Your task to perform on an android device: Add lg ultragear to the cart on newegg, then select checkout. Image 0: 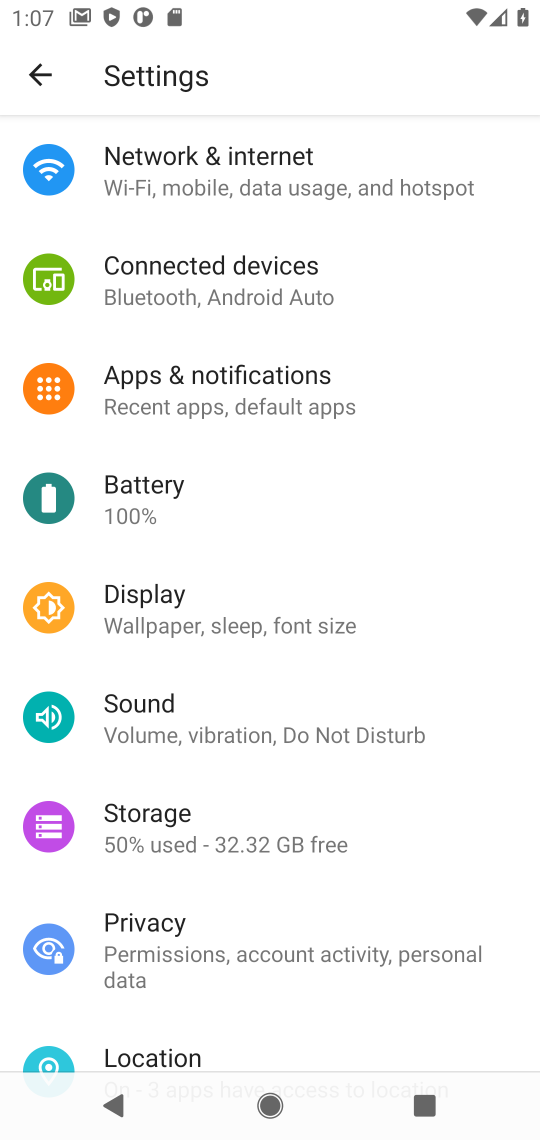
Step 0: press home button
Your task to perform on an android device: Add lg ultragear to the cart on newegg, then select checkout. Image 1: 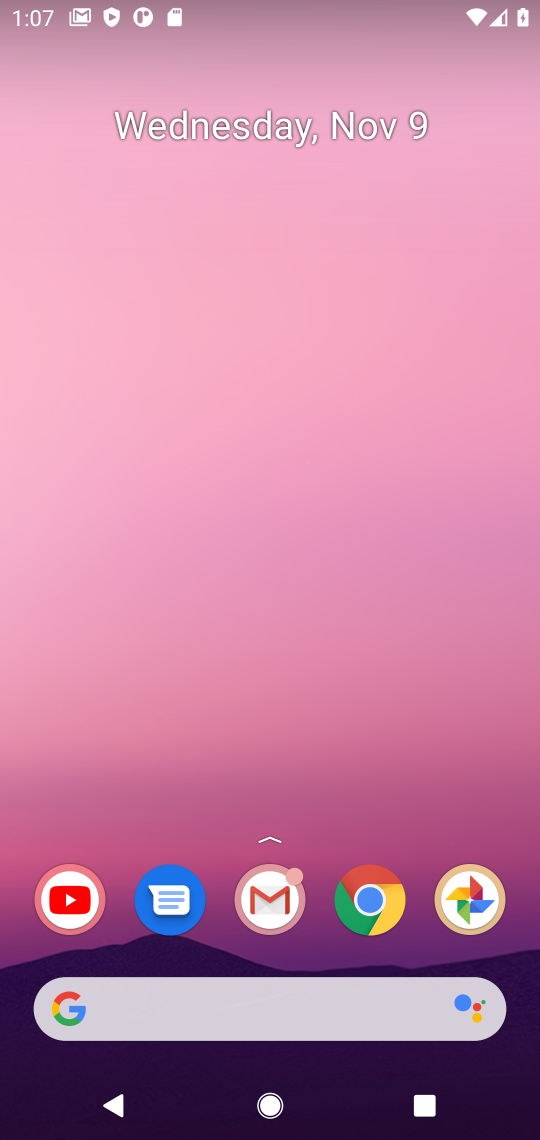
Step 1: click (366, 883)
Your task to perform on an android device: Add lg ultragear to the cart on newegg, then select checkout. Image 2: 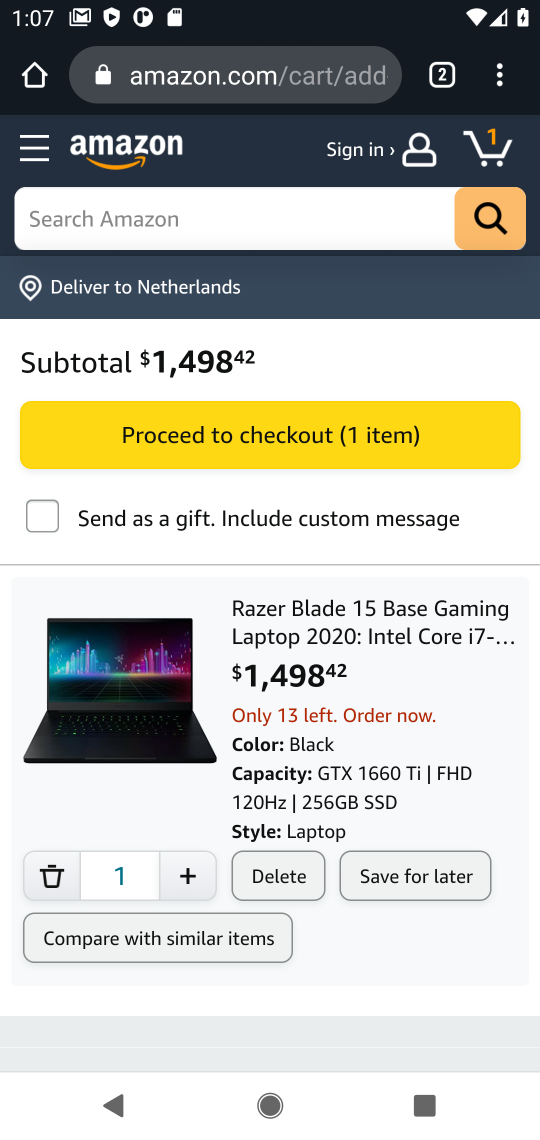
Step 2: click (449, 77)
Your task to perform on an android device: Add lg ultragear to the cart on newegg, then select checkout. Image 3: 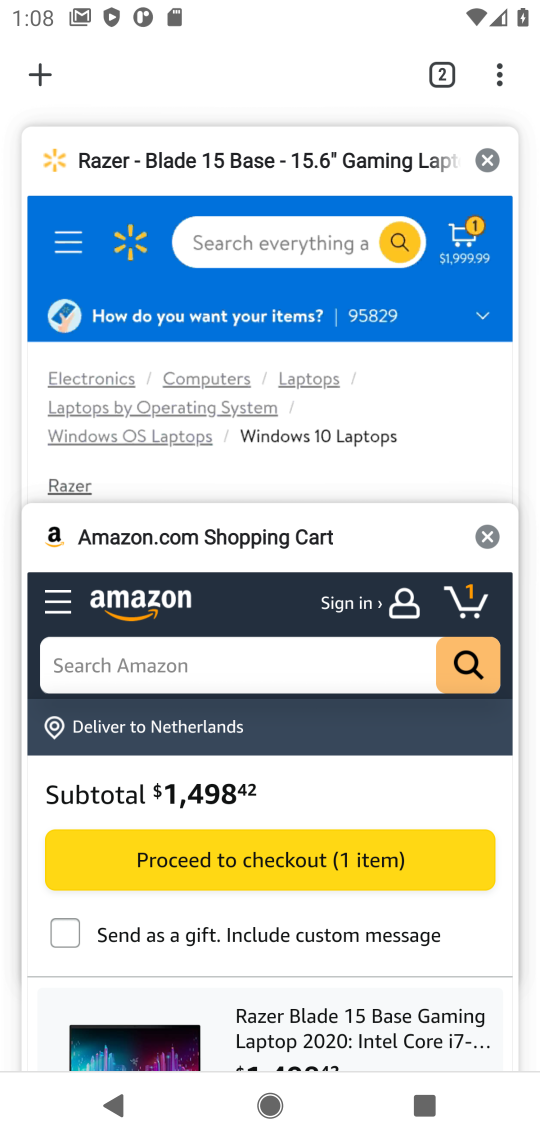
Step 3: click (40, 76)
Your task to perform on an android device: Add lg ultragear to the cart on newegg, then select checkout. Image 4: 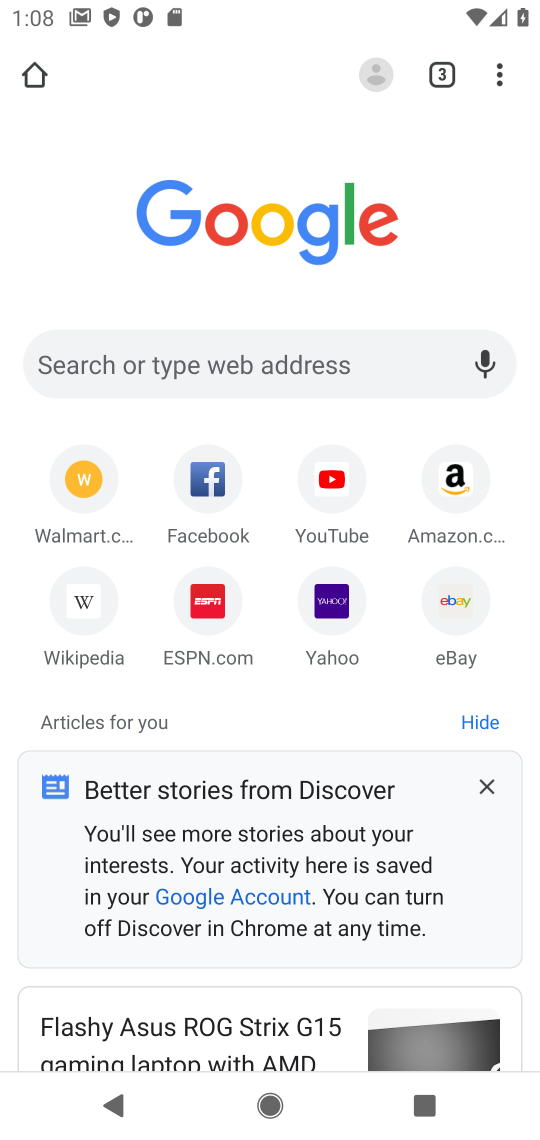
Step 4: click (196, 362)
Your task to perform on an android device: Add lg ultragear to the cart on newegg, then select checkout. Image 5: 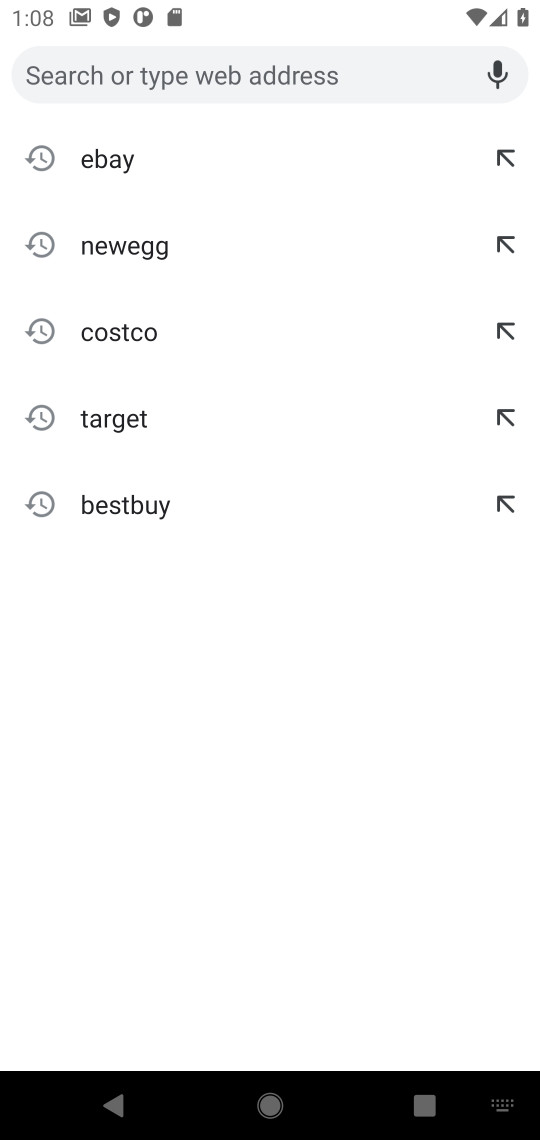
Step 5: click (142, 251)
Your task to perform on an android device: Add lg ultragear to the cart on newegg, then select checkout. Image 6: 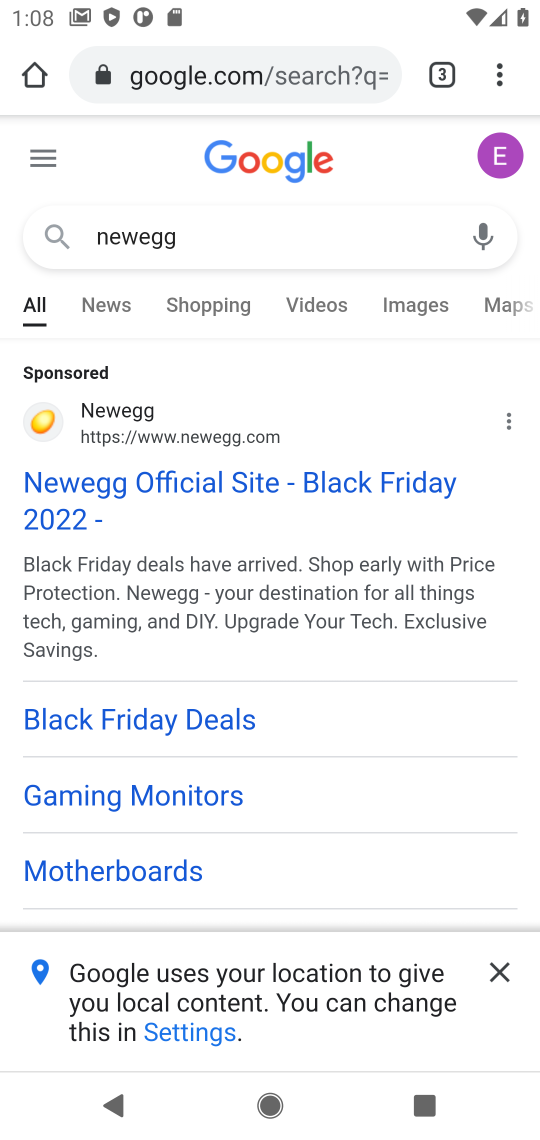
Step 6: click (281, 487)
Your task to perform on an android device: Add lg ultragear to the cart on newegg, then select checkout. Image 7: 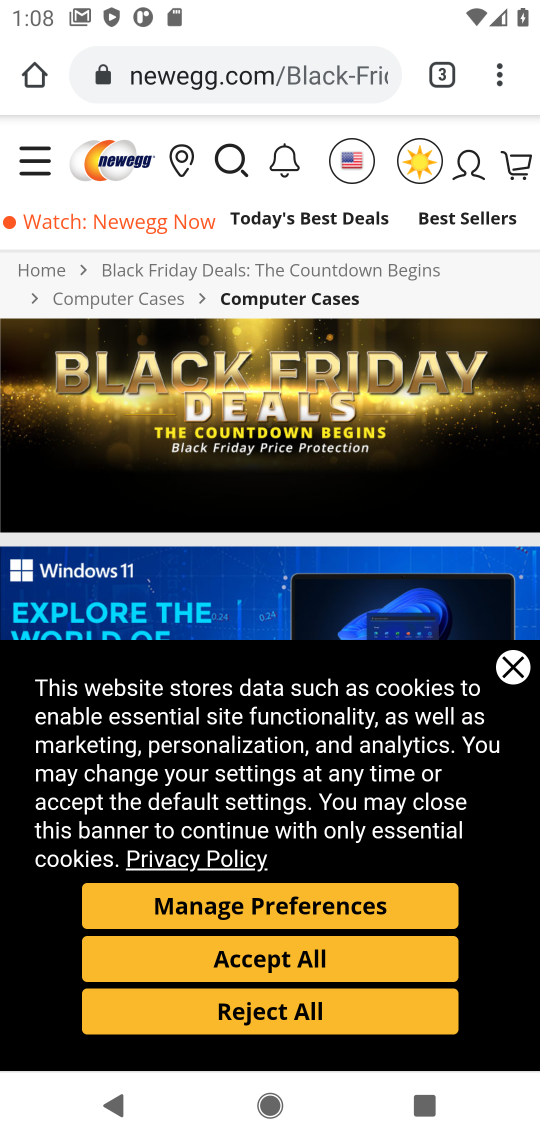
Step 7: click (338, 1013)
Your task to perform on an android device: Add lg ultragear to the cart on newegg, then select checkout. Image 8: 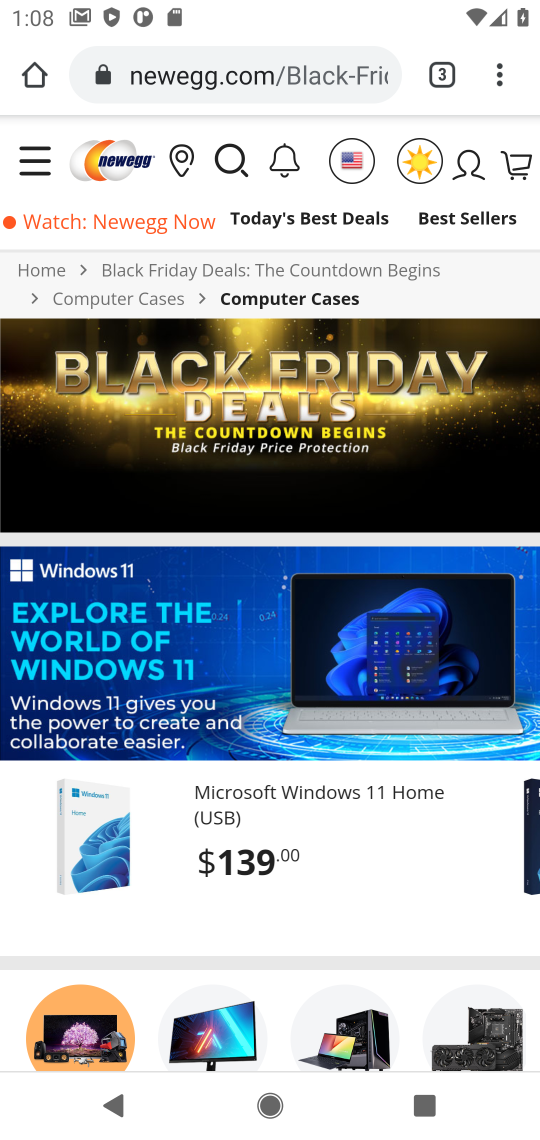
Step 8: click (227, 161)
Your task to perform on an android device: Add lg ultragear to the cart on newegg, then select checkout. Image 9: 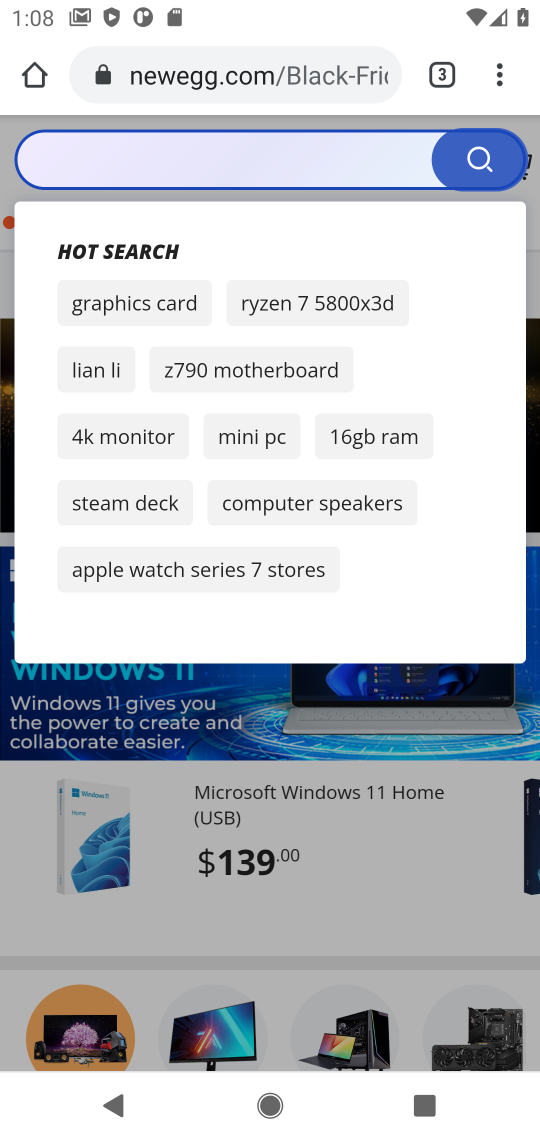
Step 9: type "lg ultragear"
Your task to perform on an android device: Add lg ultragear to the cart on newegg, then select checkout. Image 10: 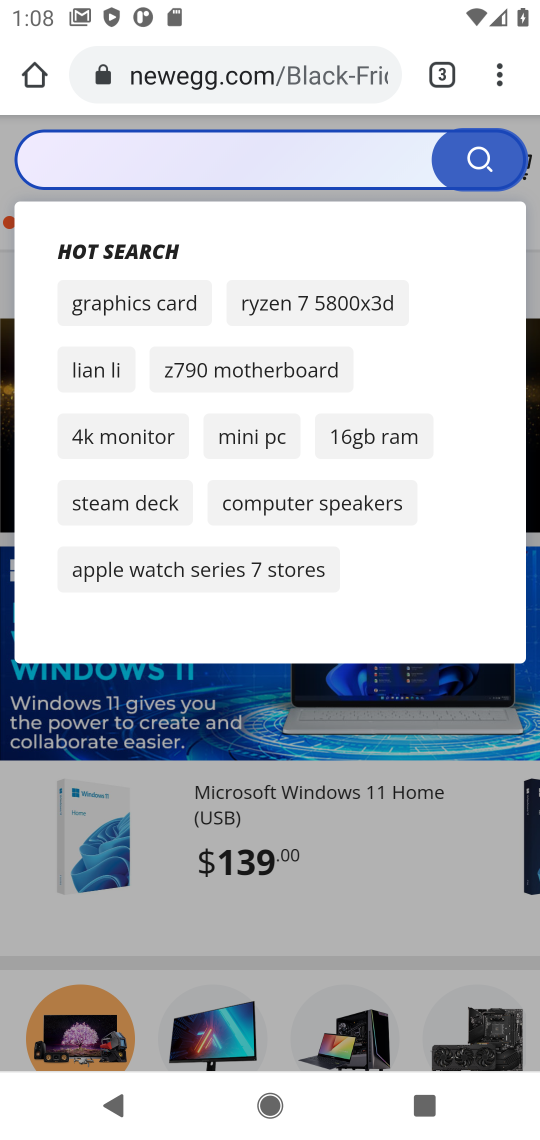
Step 10: click (309, 177)
Your task to perform on an android device: Add lg ultragear to the cart on newegg, then select checkout. Image 11: 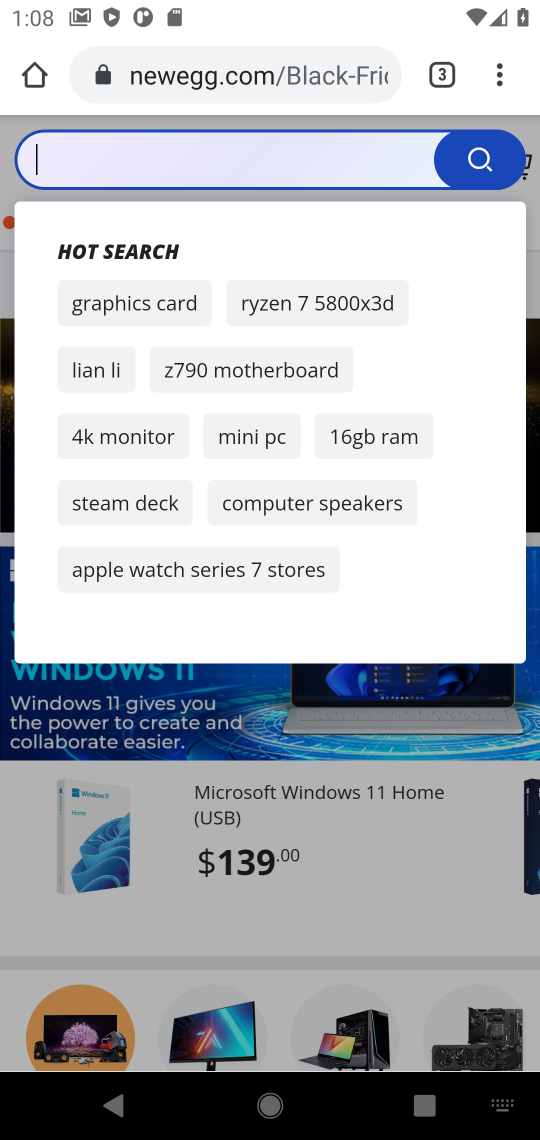
Step 11: click (309, 177)
Your task to perform on an android device: Add lg ultragear to the cart on newegg, then select checkout. Image 12: 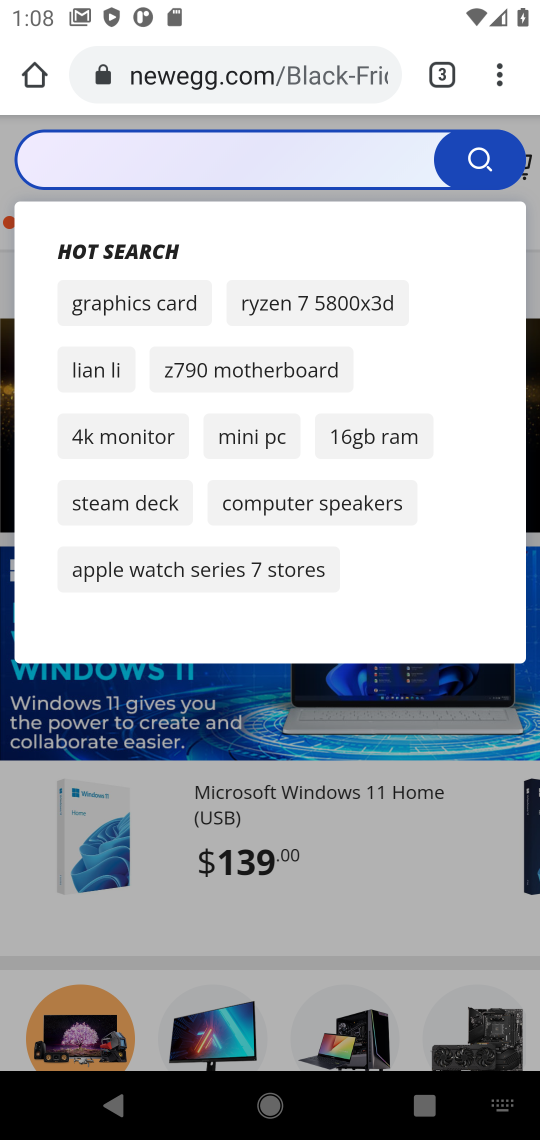
Step 12: type "lg ultragear"
Your task to perform on an android device: Add lg ultragear to the cart on newegg, then select checkout. Image 13: 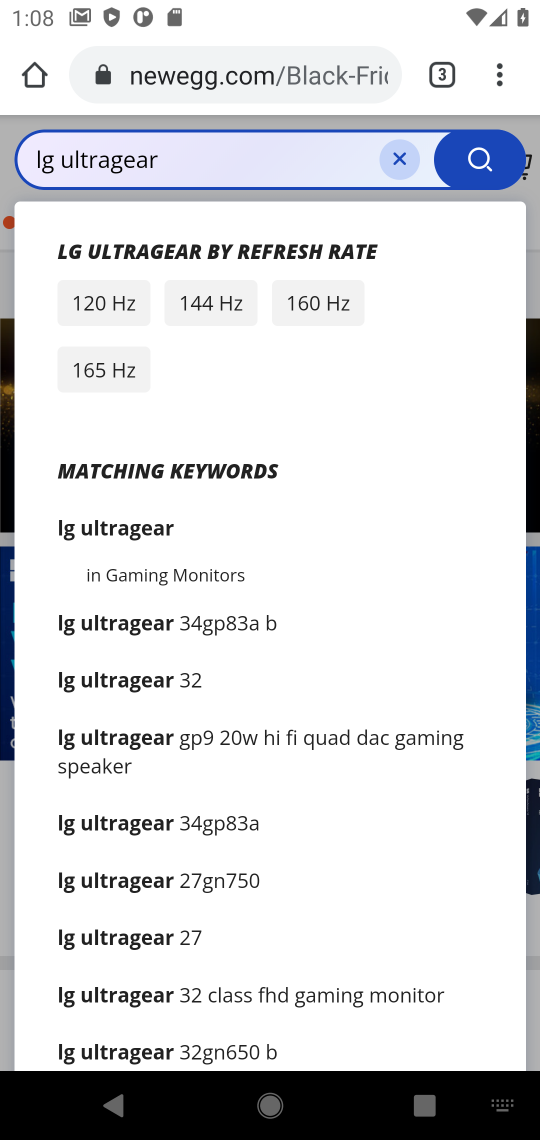
Step 13: click (132, 528)
Your task to perform on an android device: Add lg ultragear to the cart on newegg, then select checkout. Image 14: 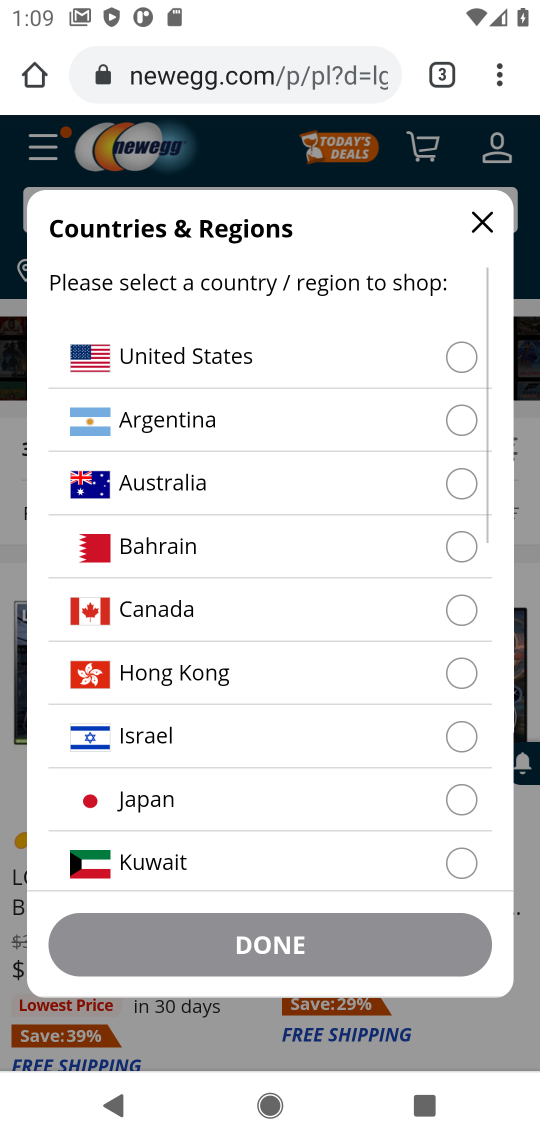
Step 14: click (458, 366)
Your task to perform on an android device: Add lg ultragear to the cart on newegg, then select checkout. Image 15: 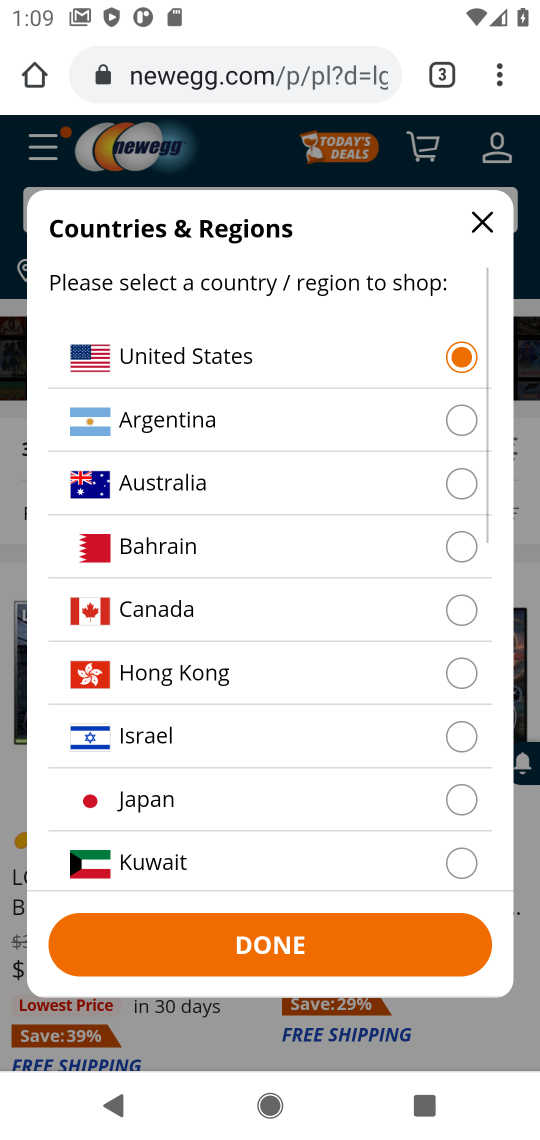
Step 15: click (265, 947)
Your task to perform on an android device: Add lg ultragear to the cart on newegg, then select checkout. Image 16: 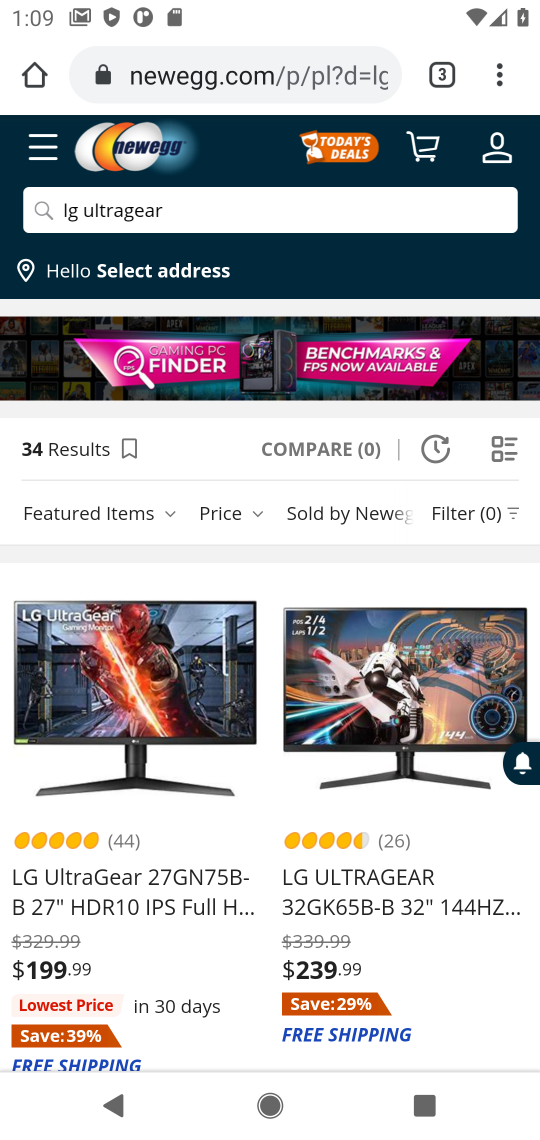
Step 16: click (172, 915)
Your task to perform on an android device: Add lg ultragear to the cart on newegg, then select checkout. Image 17: 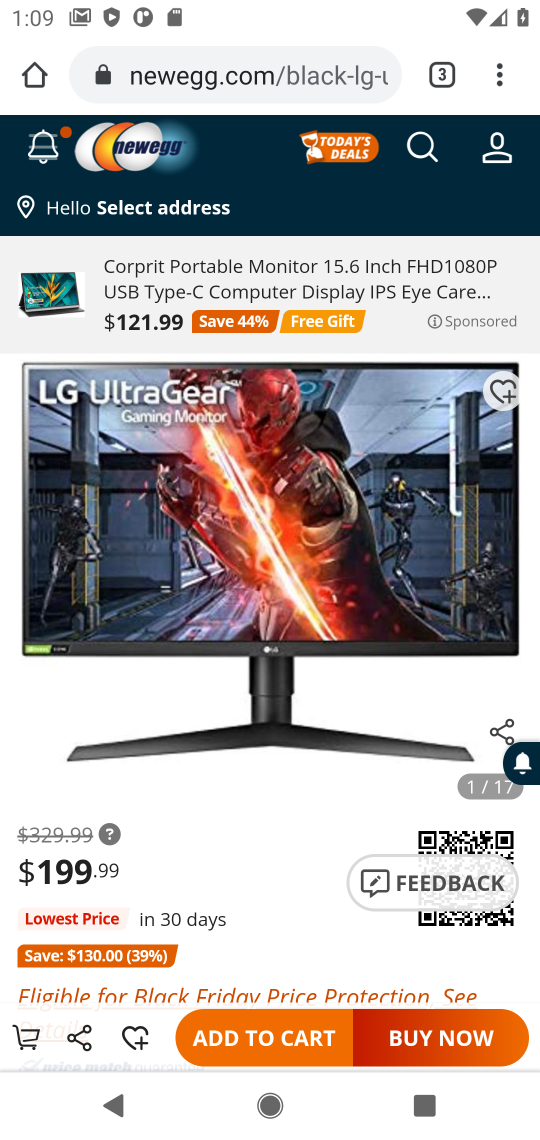
Step 17: click (236, 1045)
Your task to perform on an android device: Add lg ultragear to the cart on newegg, then select checkout. Image 18: 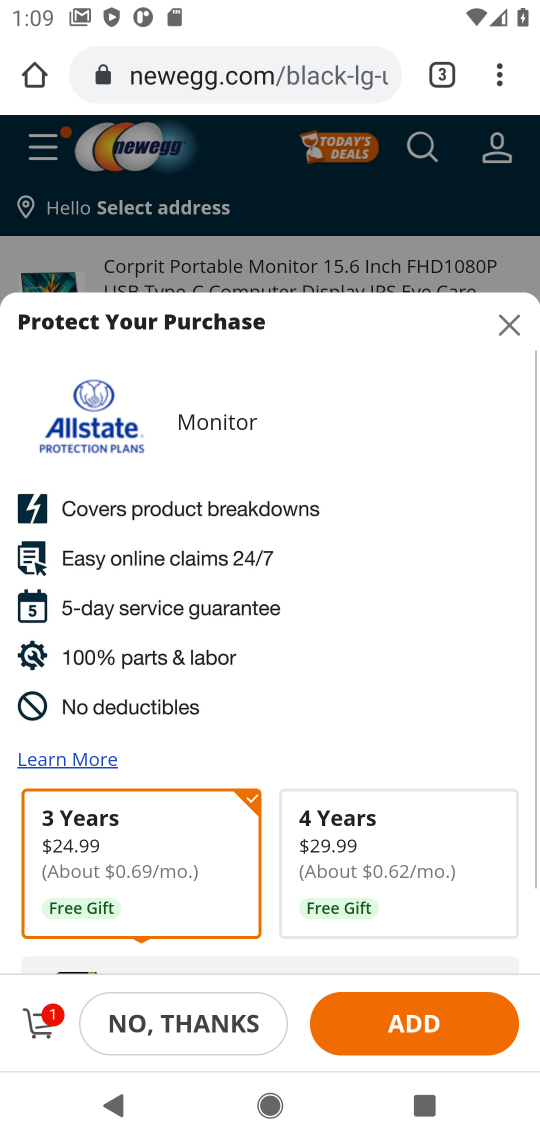
Step 18: click (49, 1005)
Your task to perform on an android device: Add lg ultragear to the cart on newegg, then select checkout. Image 19: 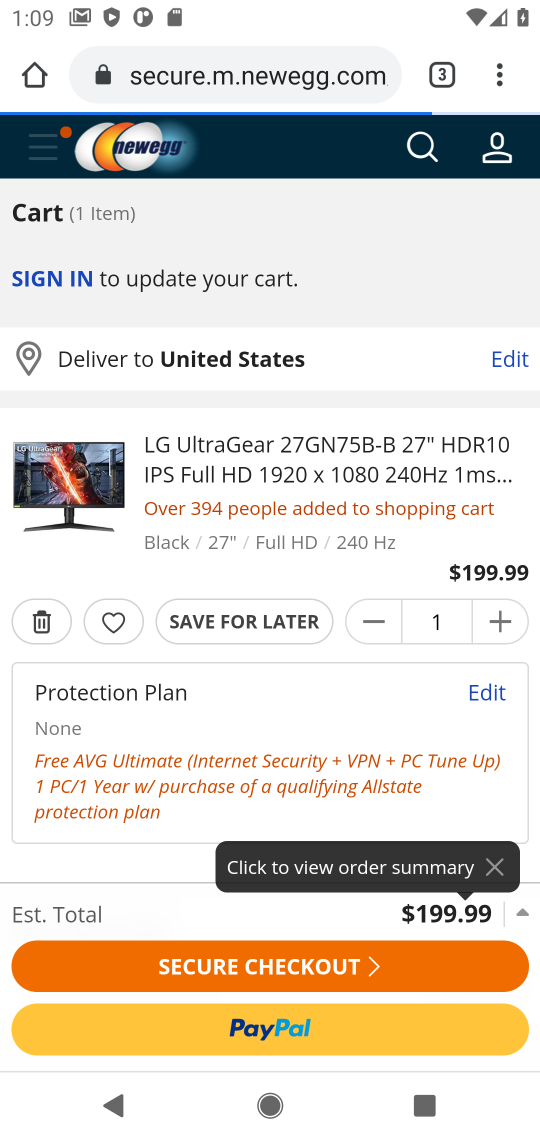
Step 19: click (159, 1018)
Your task to perform on an android device: Add lg ultragear to the cart on newegg, then select checkout. Image 20: 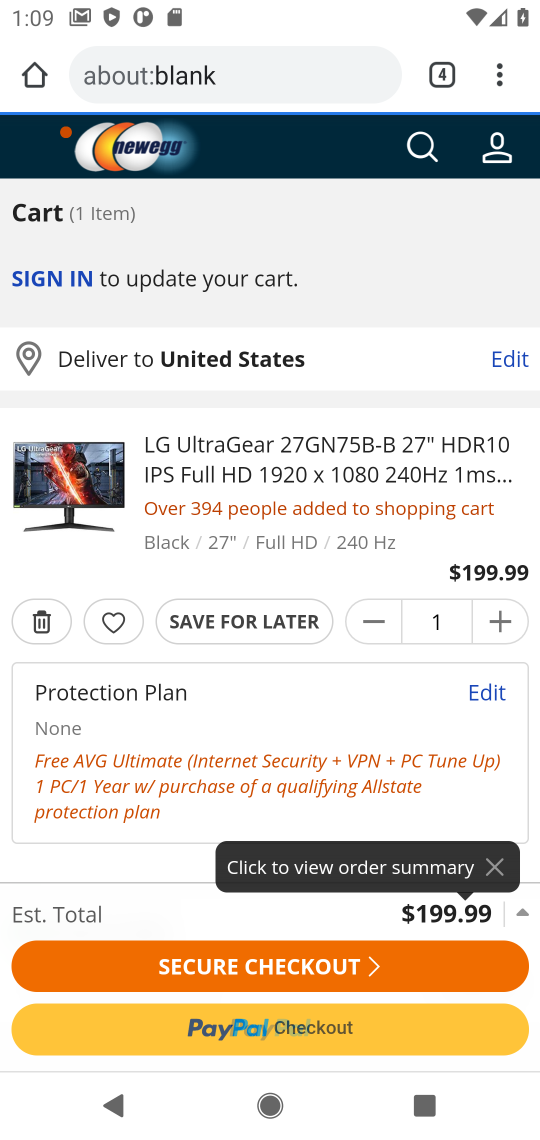
Step 20: click (193, 960)
Your task to perform on an android device: Add lg ultragear to the cart on newegg, then select checkout. Image 21: 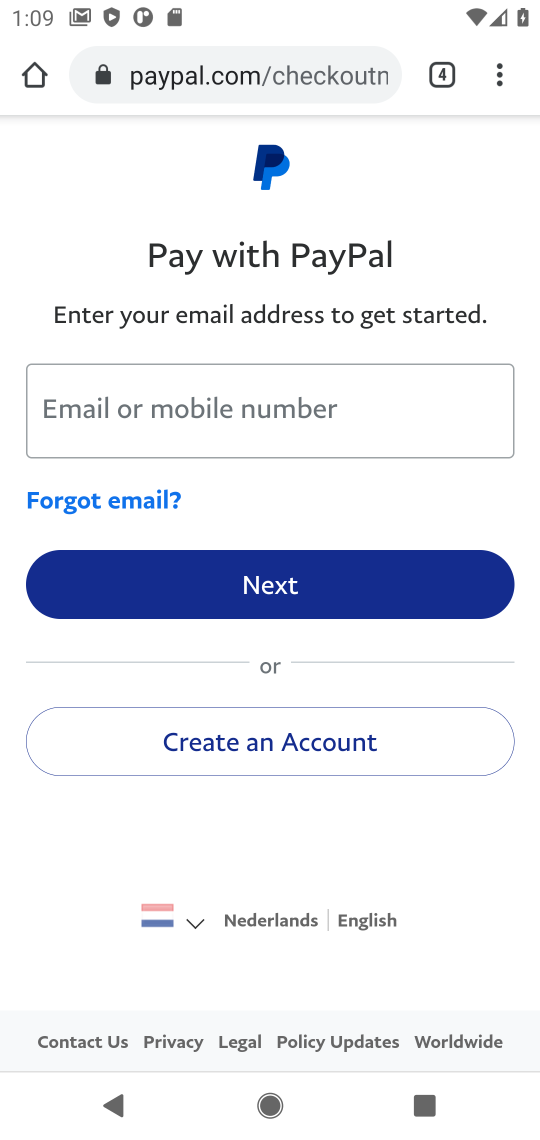
Step 21: task complete